Your task to perform on an android device: Open the Play Movies app and select the watchlist tab. Image 0: 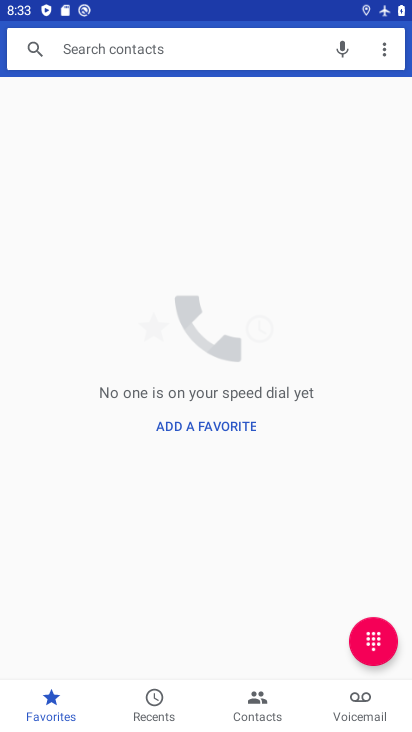
Step 0: press home button
Your task to perform on an android device: Open the Play Movies app and select the watchlist tab. Image 1: 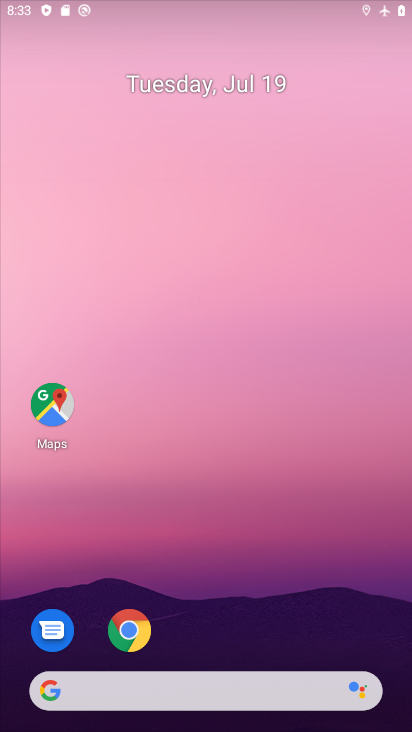
Step 1: drag from (212, 628) to (230, 104)
Your task to perform on an android device: Open the Play Movies app and select the watchlist tab. Image 2: 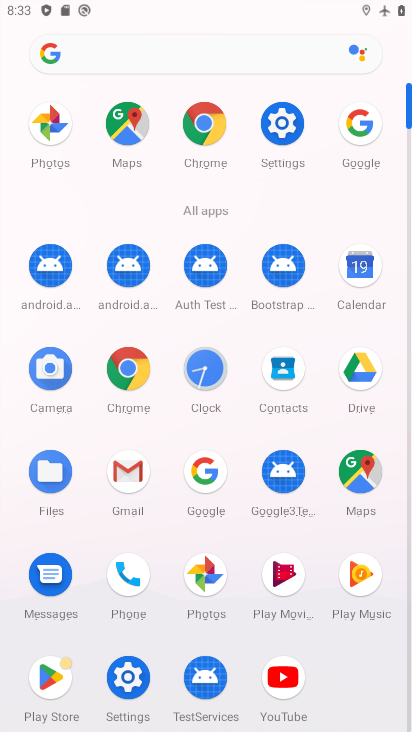
Step 2: click (48, 682)
Your task to perform on an android device: Open the Play Movies app and select the watchlist tab. Image 3: 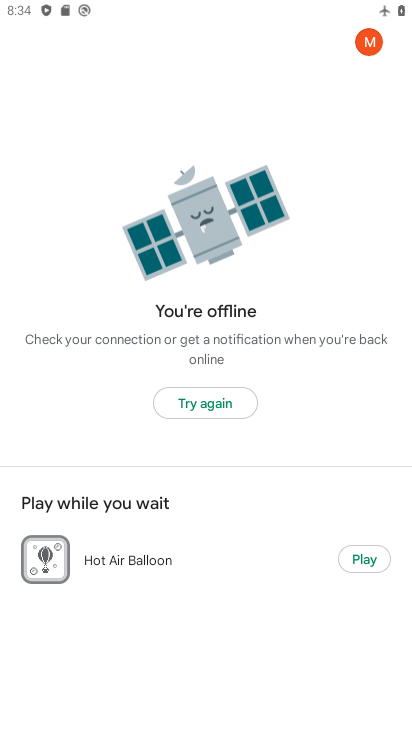
Step 3: task complete